Your task to perform on an android device: Search for logitech g pro on target, select the first entry, add it to the cart, then select checkout. Image 0: 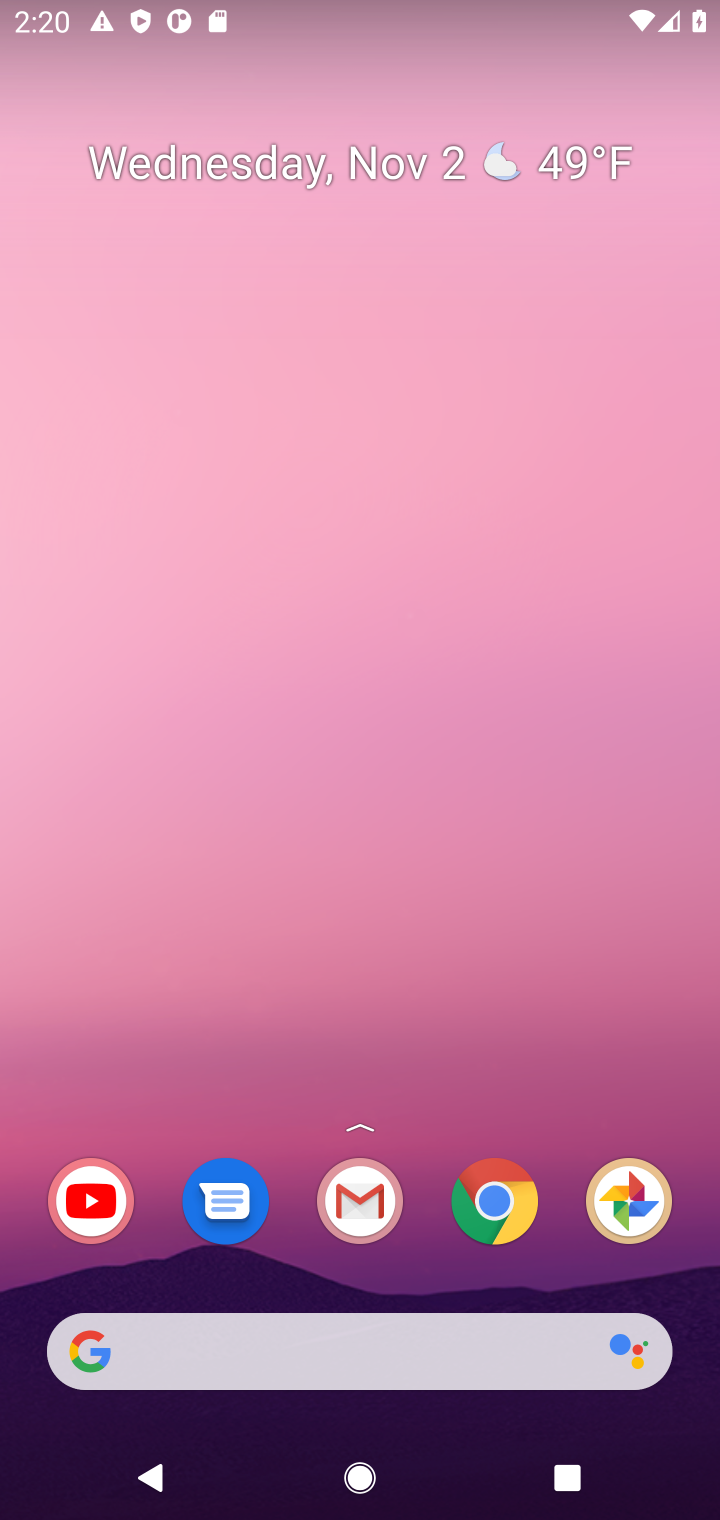
Step 0: click (501, 1191)
Your task to perform on an android device: Search for logitech g pro on target, select the first entry, add it to the cart, then select checkout. Image 1: 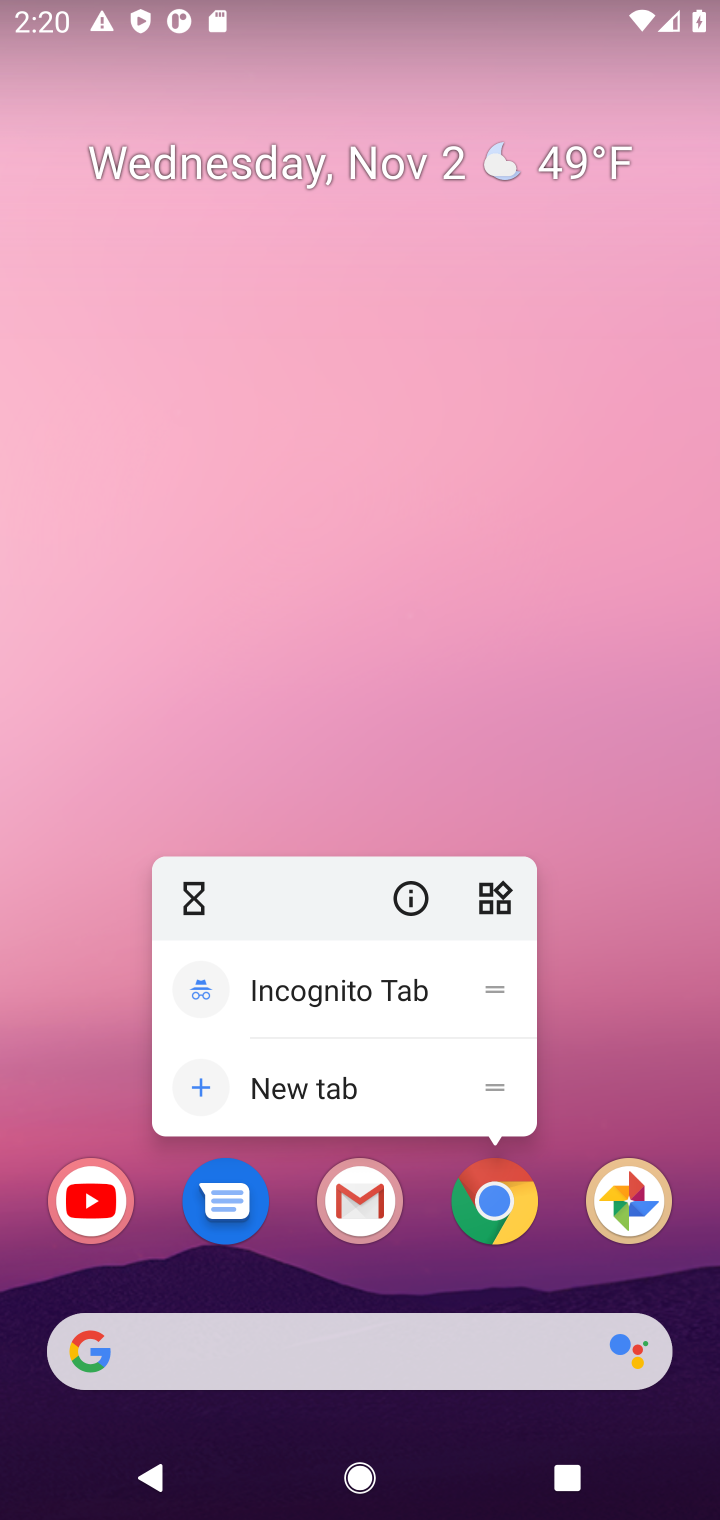
Step 1: click (501, 1195)
Your task to perform on an android device: Search for logitech g pro on target, select the first entry, add it to the cart, then select checkout. Image 2: 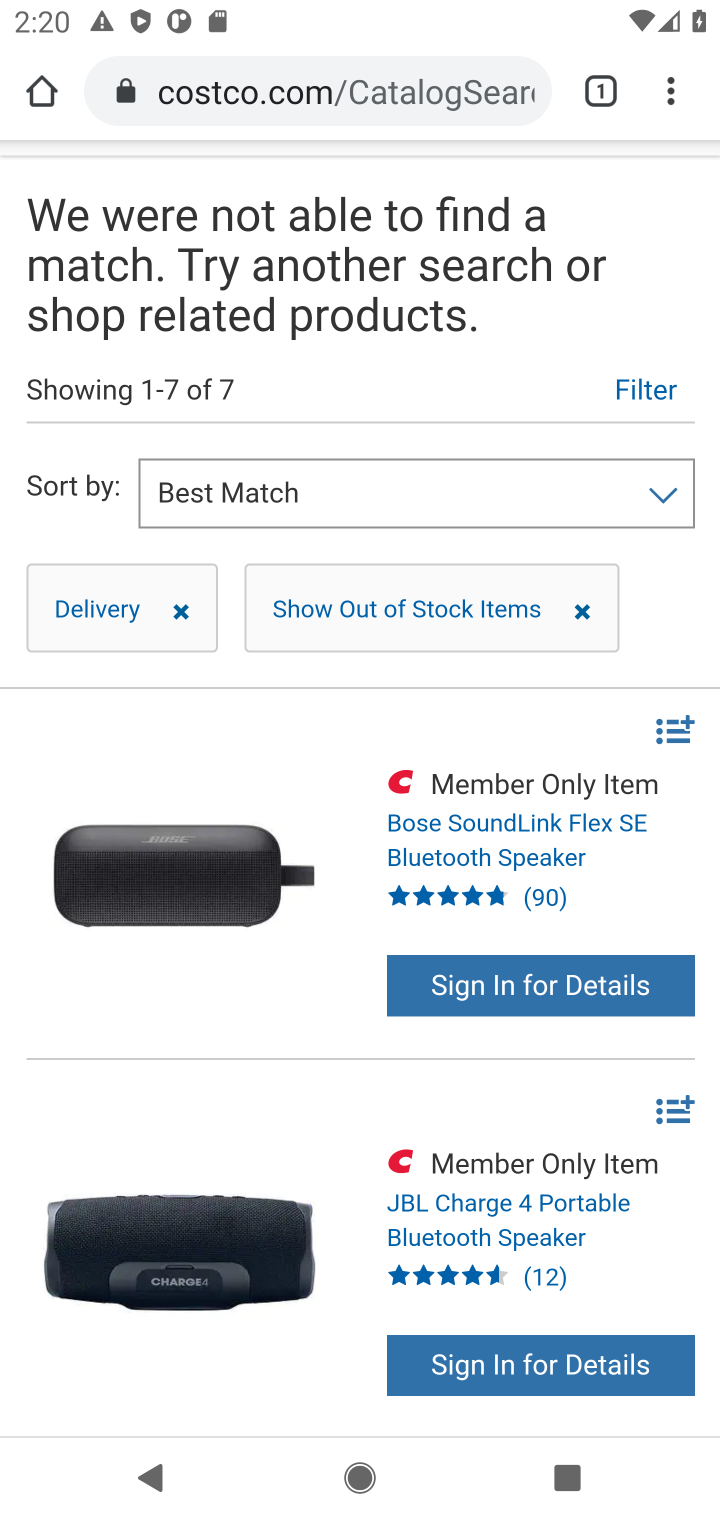
Step 2: drag from (534, 190) to (369, 1000)
Your task to perform on an android device: Search for logitech g pro on target, select the first entry, add it to the cart, then select checkout. Image 3: 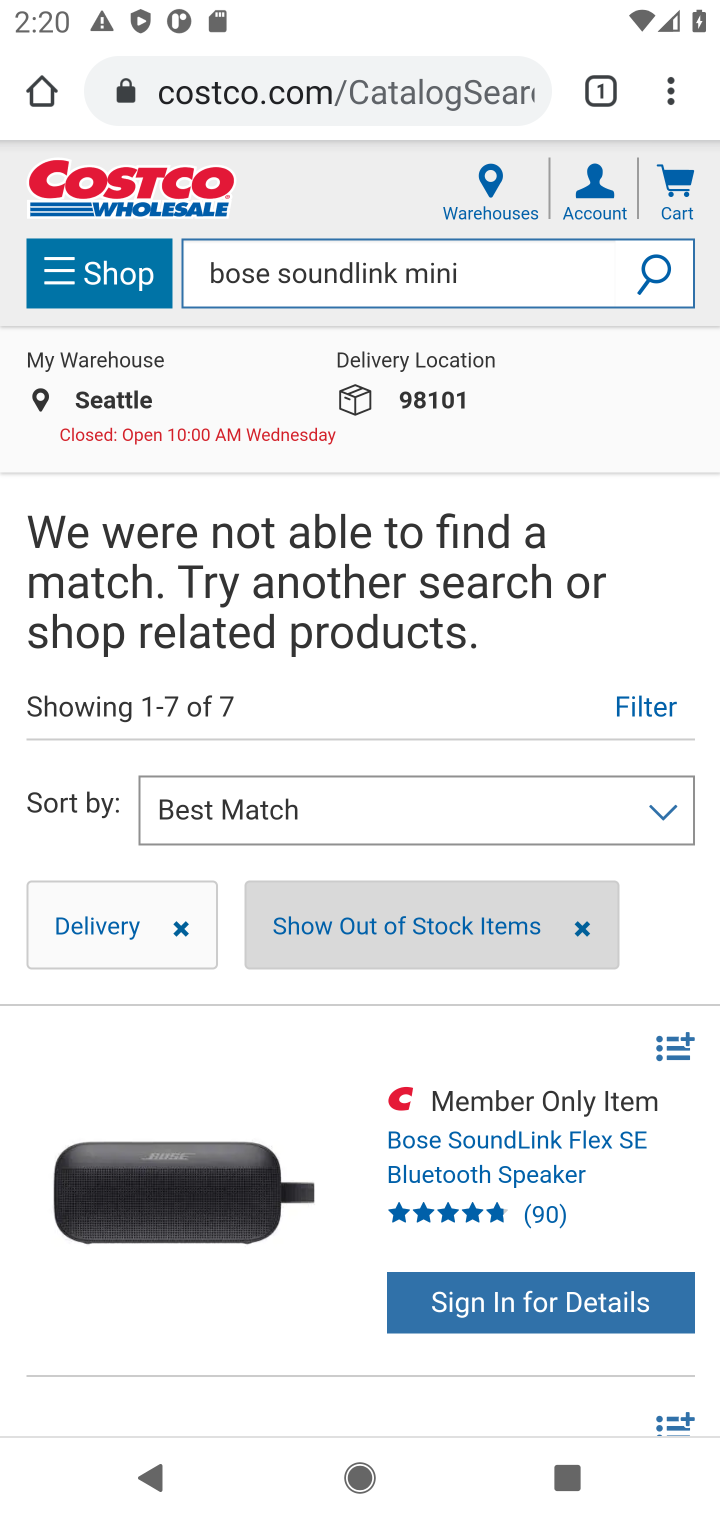
Step 3: click (561, 266)
Your task to perform on an android device: Search for logitech g pro on target, select the first entry, add it to the cart, then select checkout. Image 4: 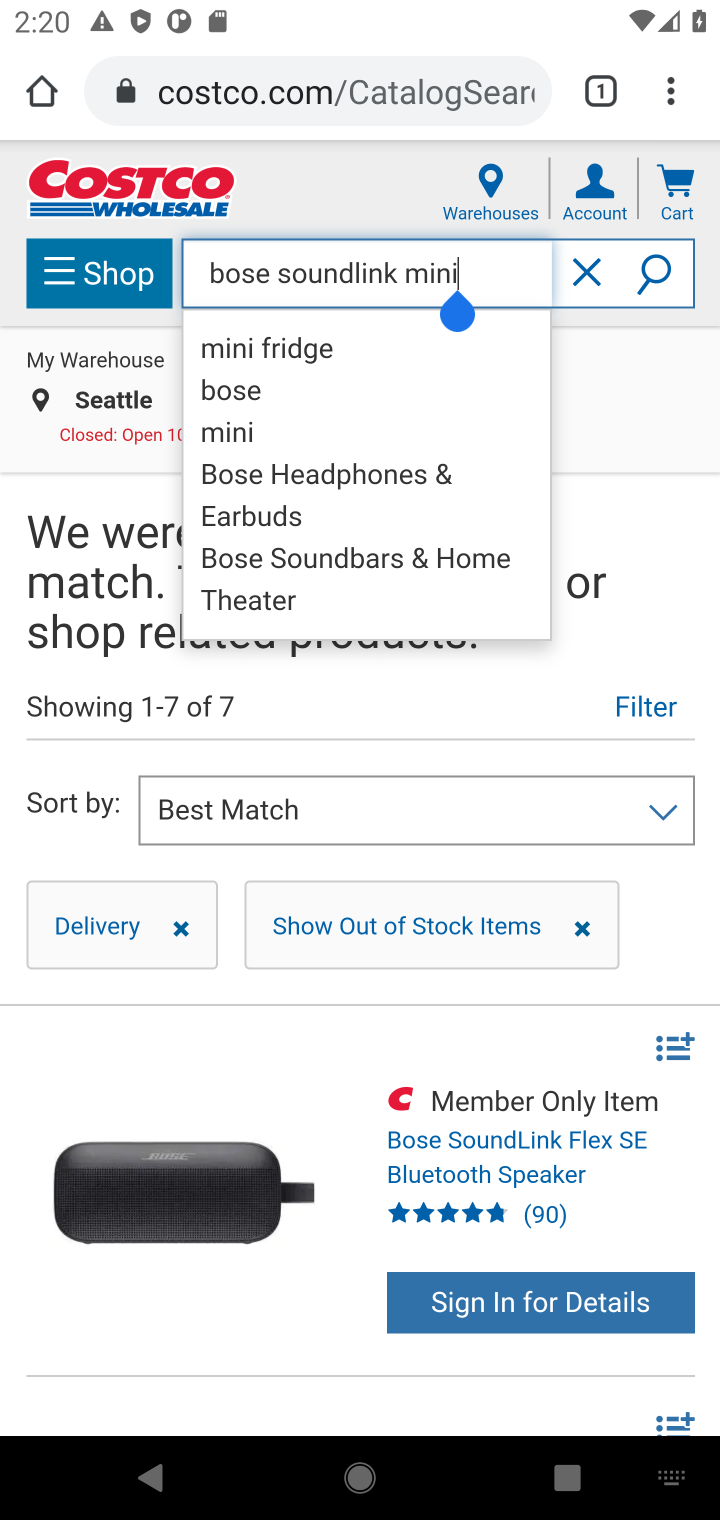
Step 4: click (483, 263)
Your task to perform on an android device: Search for logitech g pro on target, select the first entry, add it to the cart, then select checkout. Image 5: 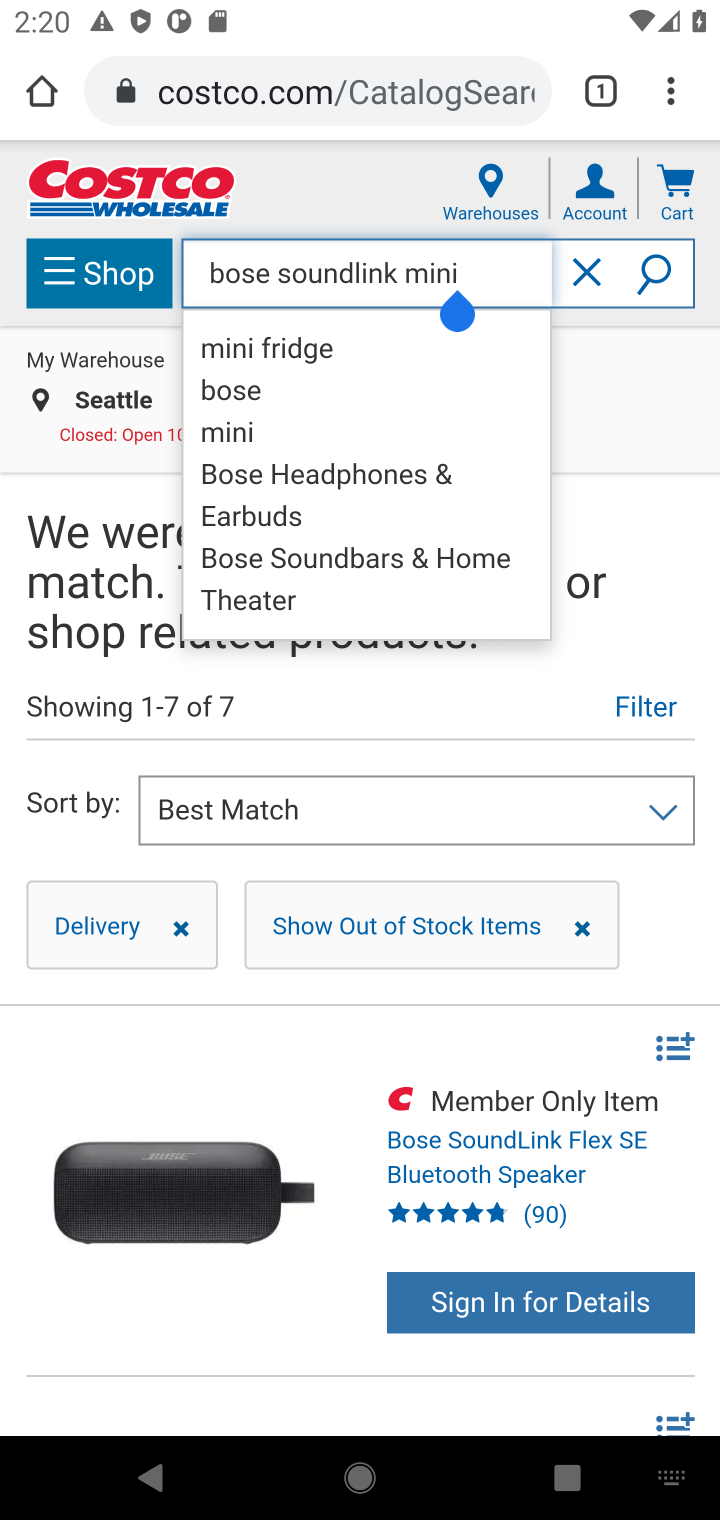
Step 5: click (583, 271)
Your task to perform on an android device: Search for logitech g pro on target, select the first entry, add it to the cart, then select checkout. Image 6: 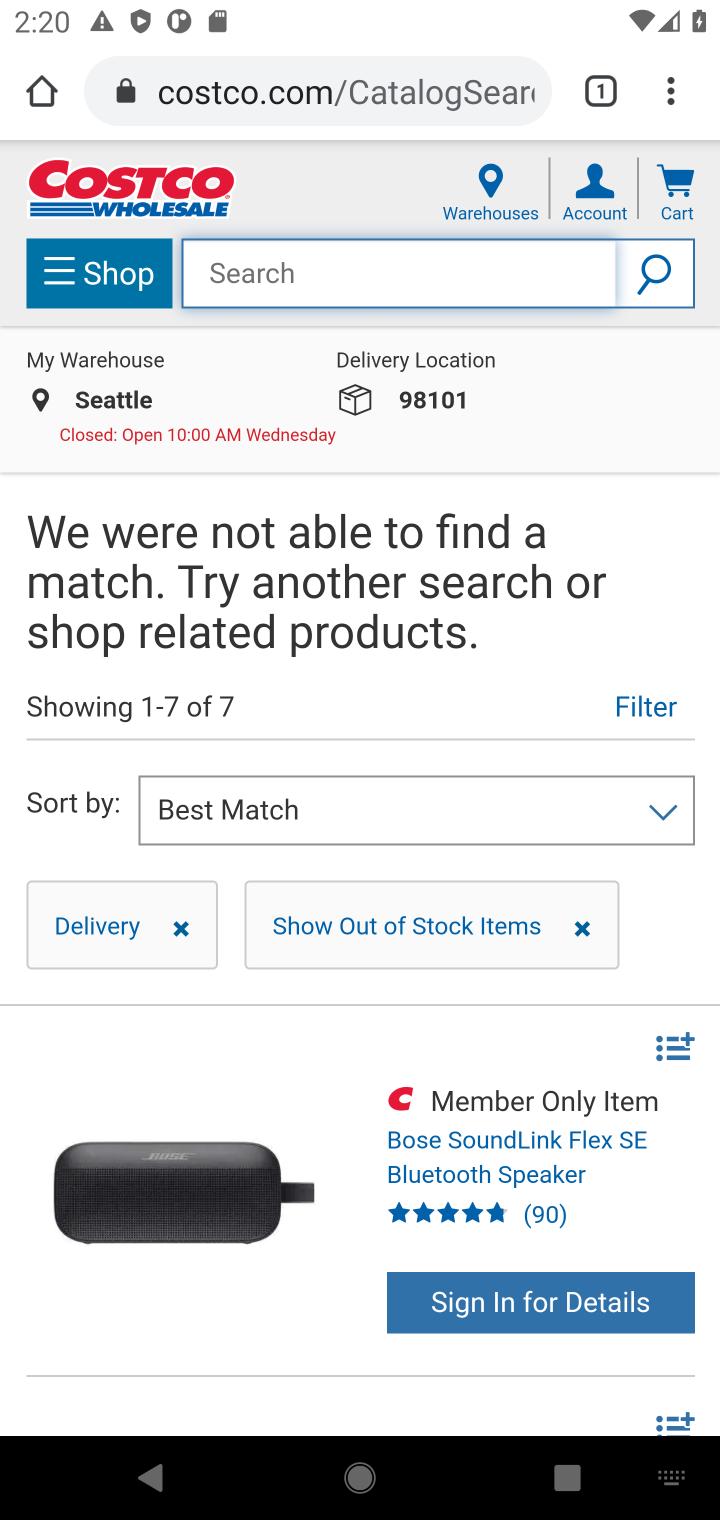
Step 6: click (334, 283)
Your task to perform on an android device: Search for logitech g pro on target, select the first entry, add it to the cart, then select checkout. Image 7: 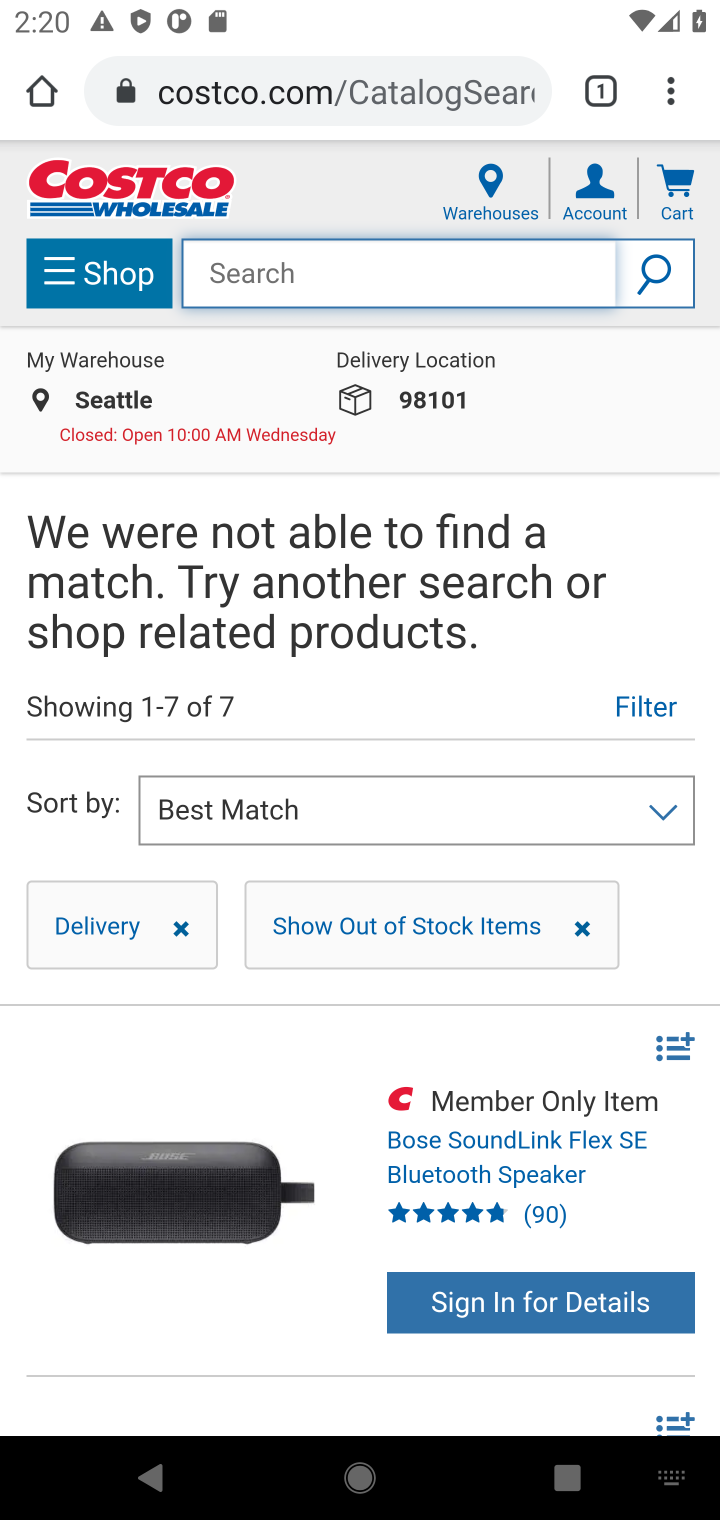
Step 7: click (418, 92)
Your task to perform on an android device: Search for logitech g pro on target, select the first entry, add it to the cart, then select checkout. Image 8: 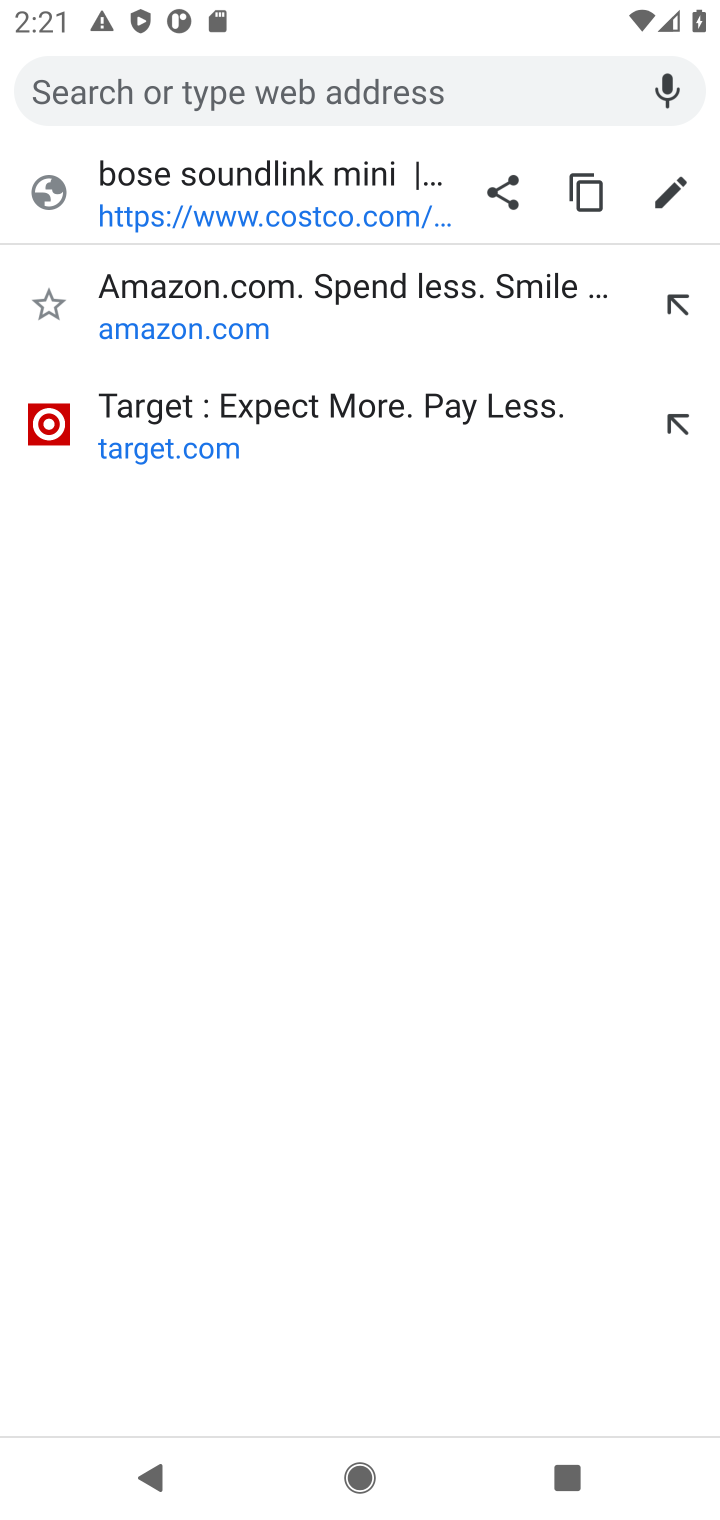
Step 8: click (152, 396)
Your task to perform on an android device: Search for logitech g pro on target, select the first entry, add it to the cart, then select checkout. Image 9: 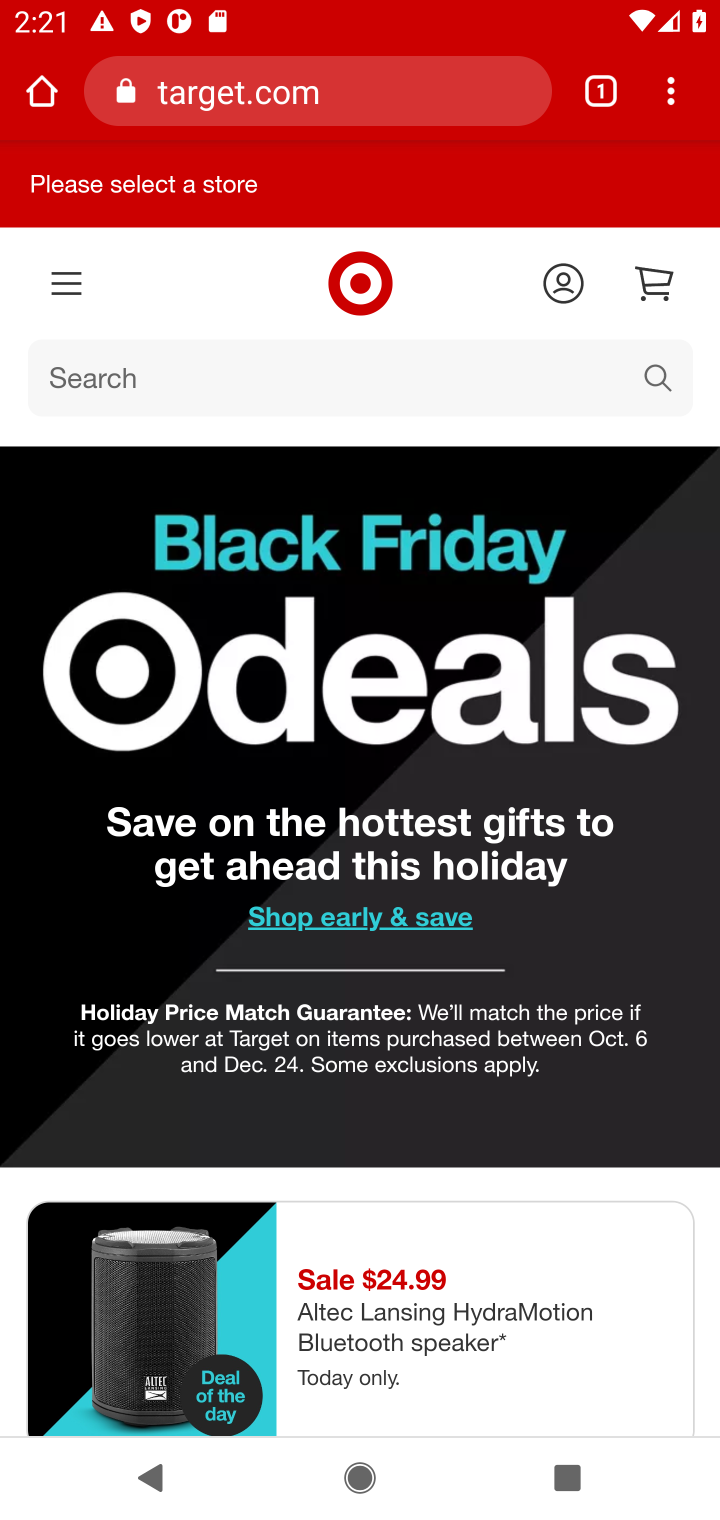
Step 9: click (316, 390)
Your task to perform on an android device: Search for logitech g pro on target, select the first entry, add it to the cart, then select checkout. Image 10: 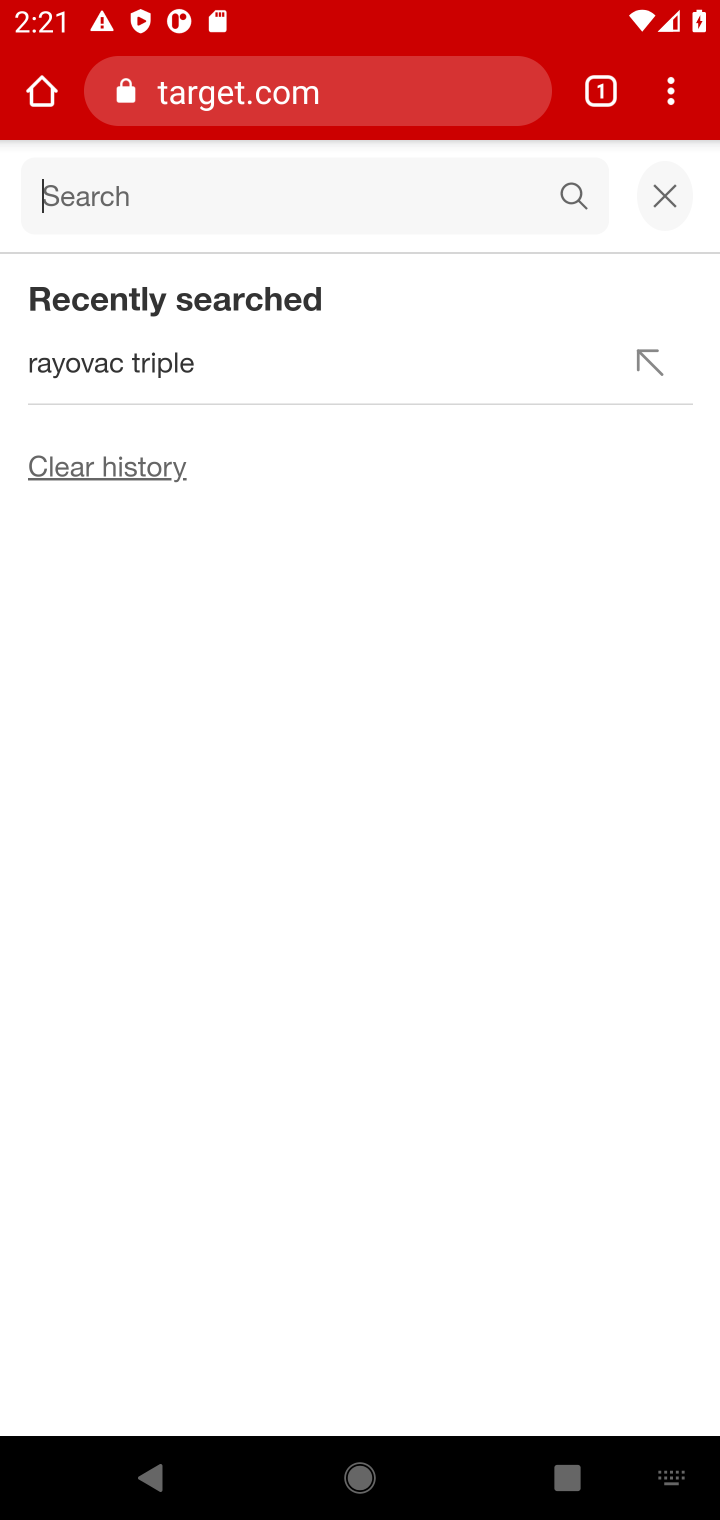
Step 10: press enter
Your task to perform on an android device: Search for logitech g pro on target, select the first entry, add it to the cart, then select checkout. Image 11: 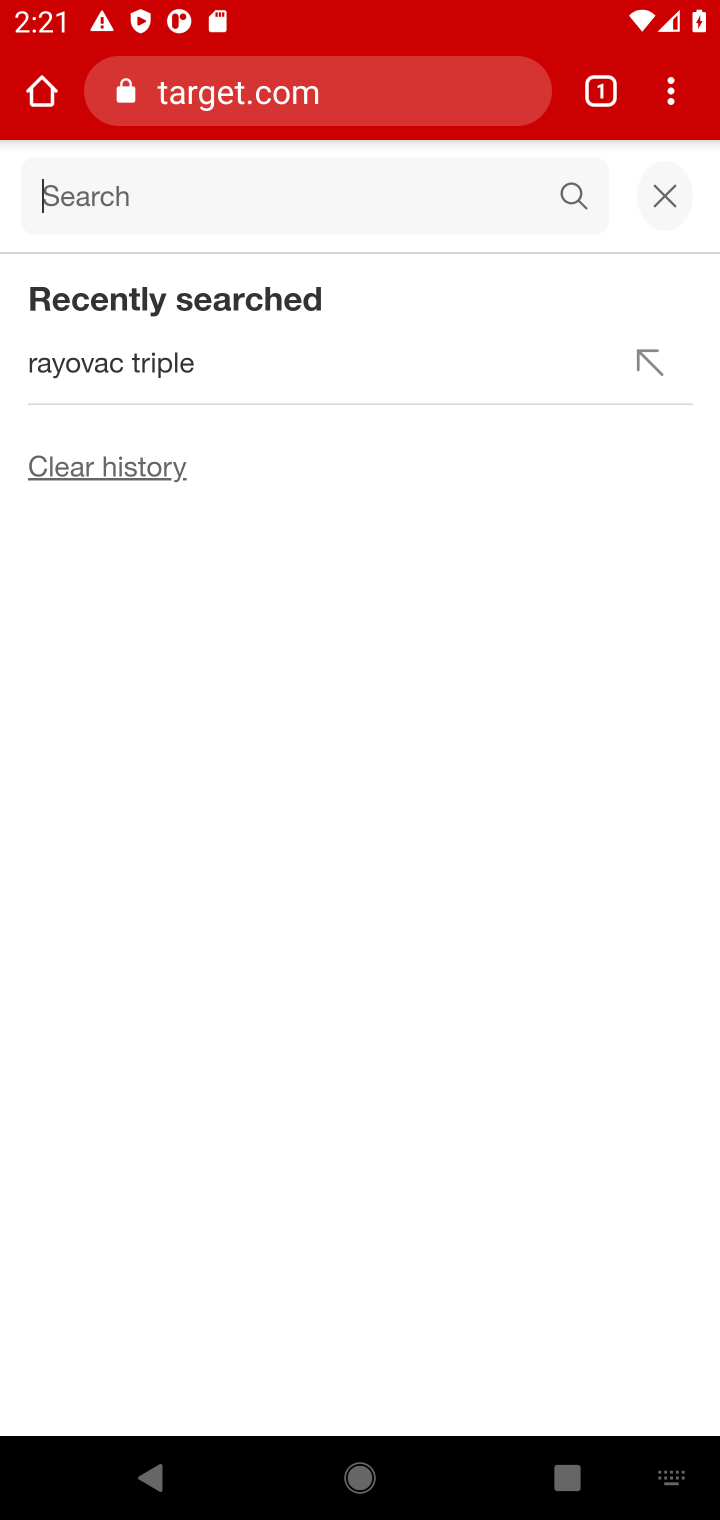
Step 11: type "logitech g pro"
Your task to perform on an android device: Search for logitech g pro on target, select the first entry, add it to the cart, then select checkout. Image 12: 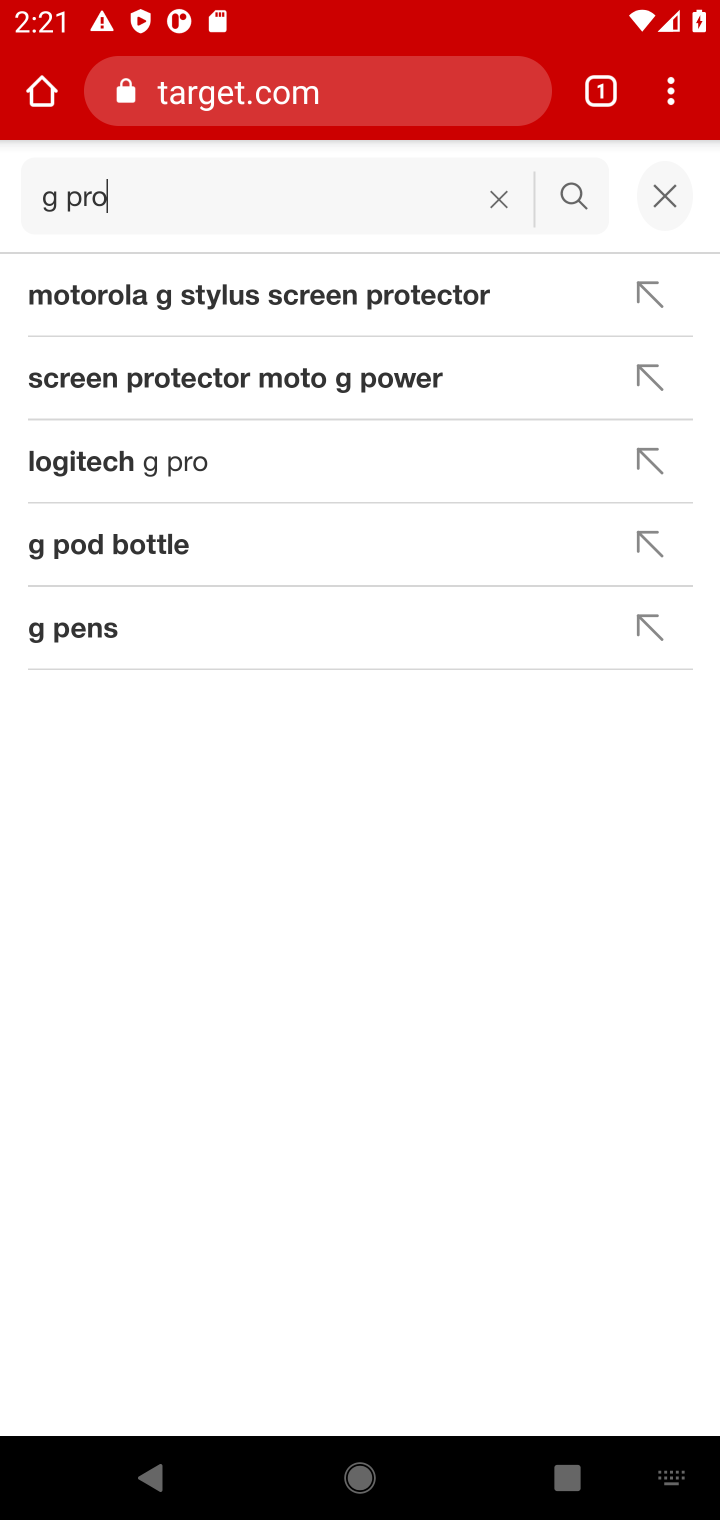
Step 12: click (505, 188)
Your task to perform on an android device: Search for logitech g pro on target, select the first entry, add it to the cart, then select checkout. Image 13: 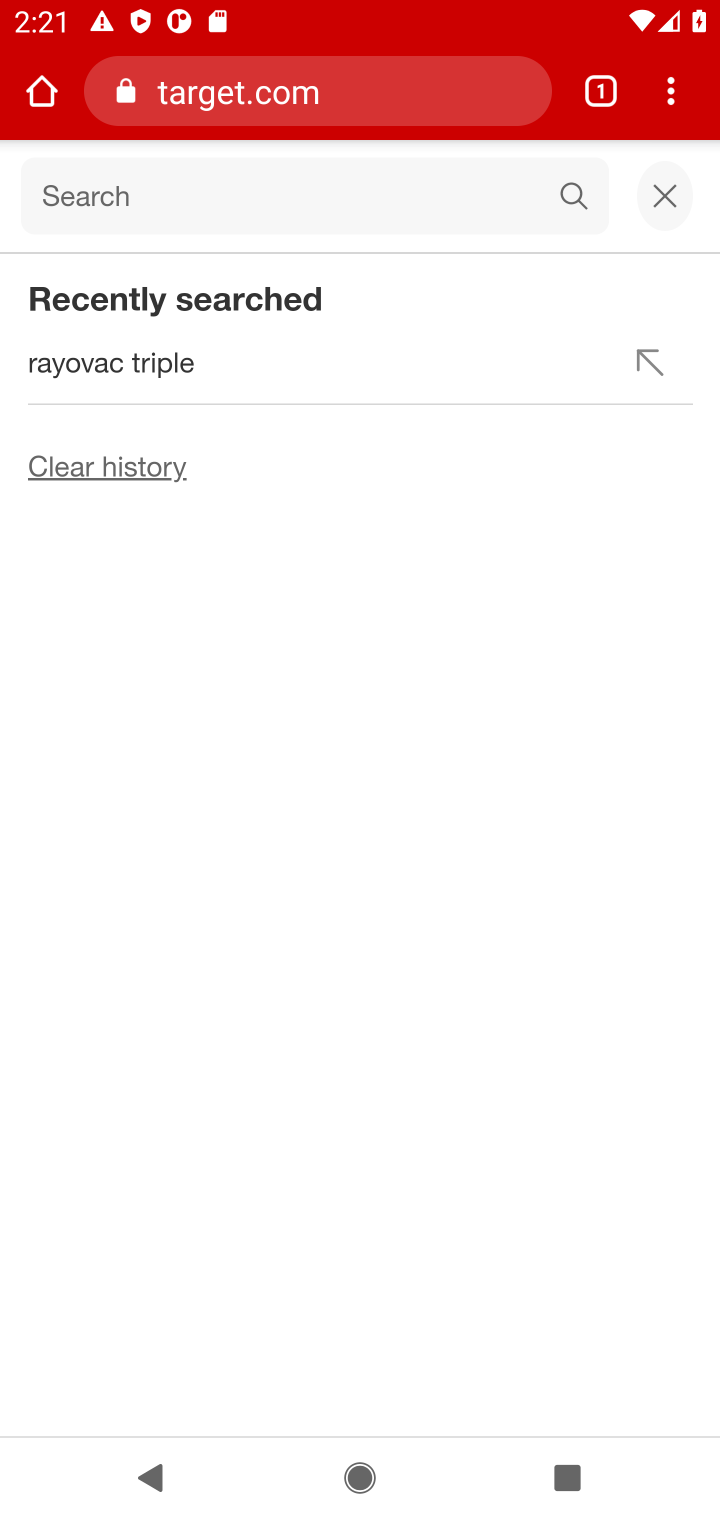
Step 13: type "logitech g pro"
Your task to perform on an android device: Search for logitech g pro on target, select the first entry, add it to the cart, then select checkout. Image 14: 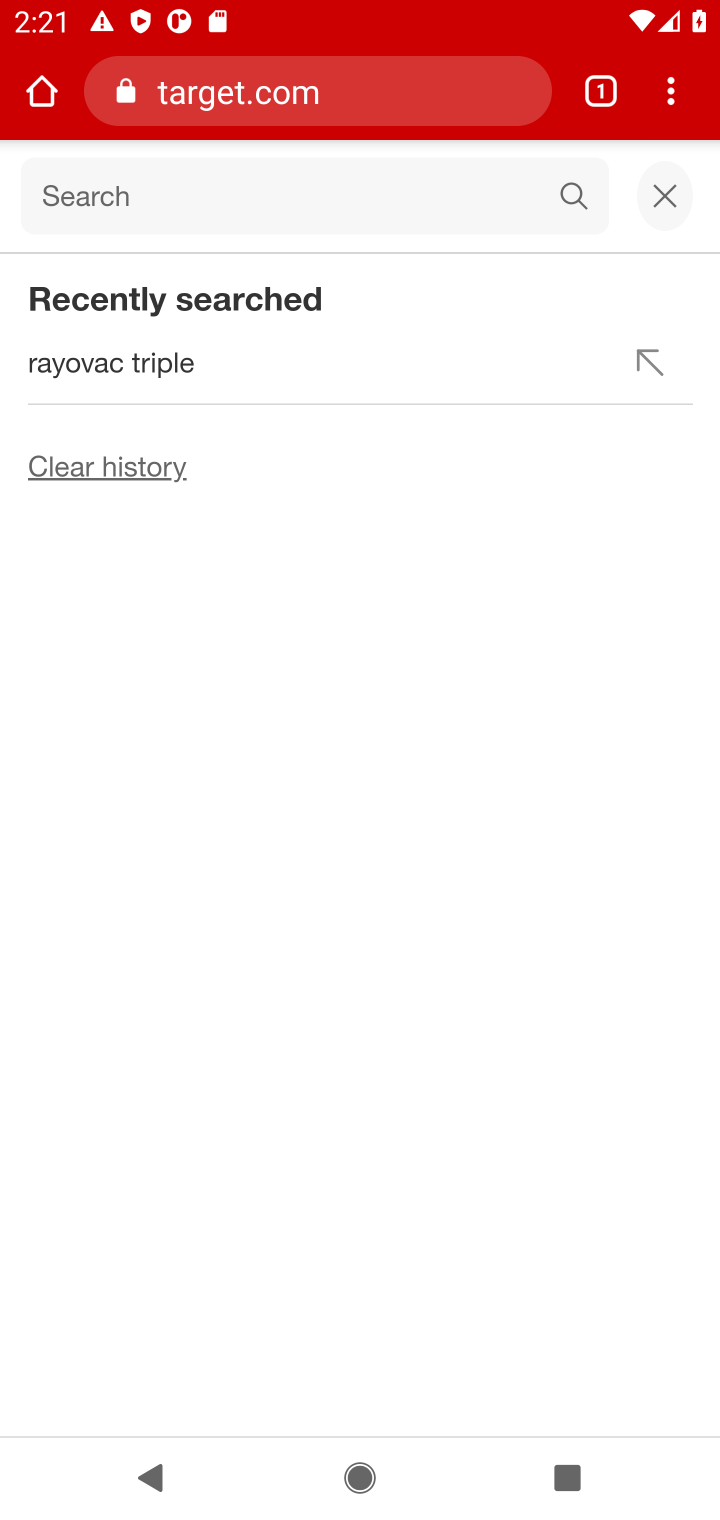
Step 14: press enter
Your task to perform on an android device: Search for logitech g pro on target, select the first entry, add it to the cart, then select checkout. Image 15: 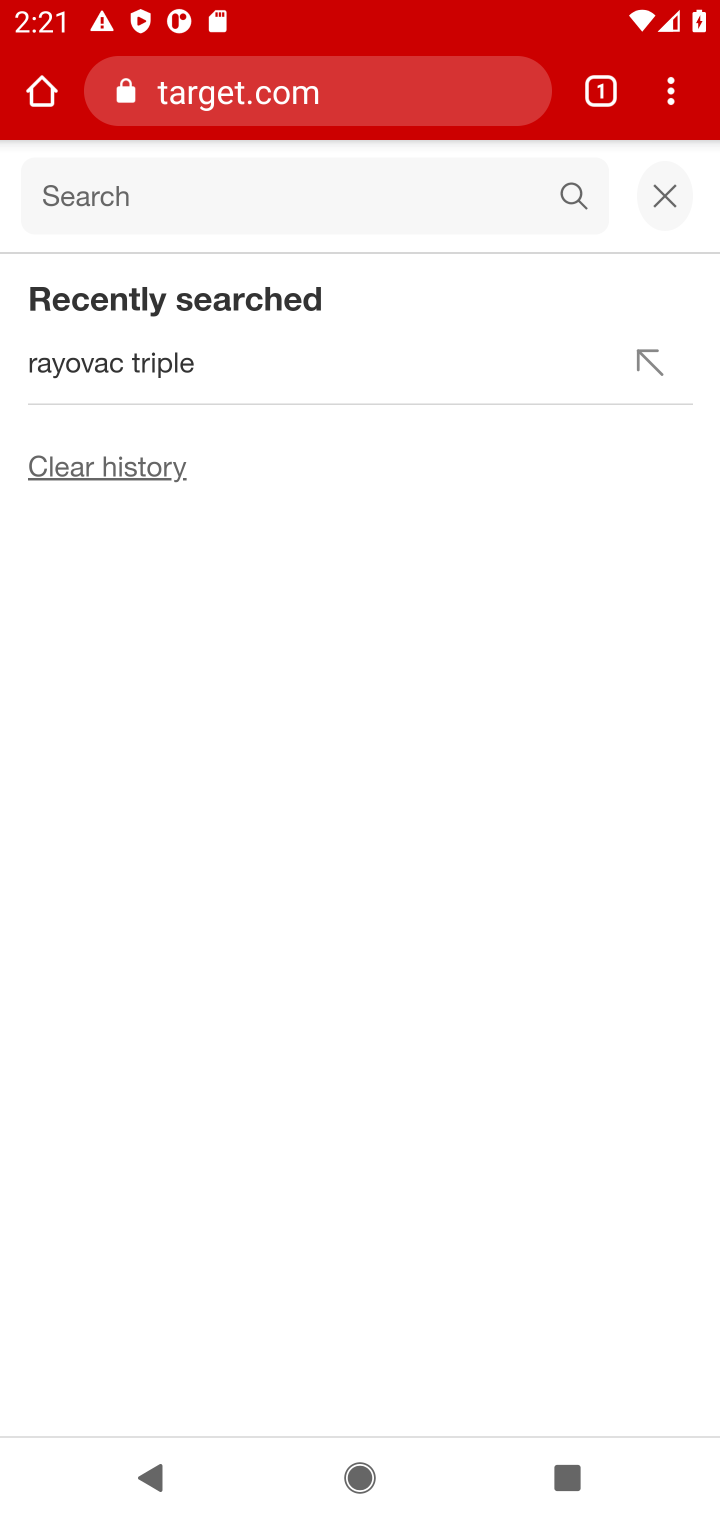
Step 15: click (63, 203)
Your task to perform on an android device: Search for logitech g pro on target, select the first entry, add it to the cart, then select checkout. Image 16: 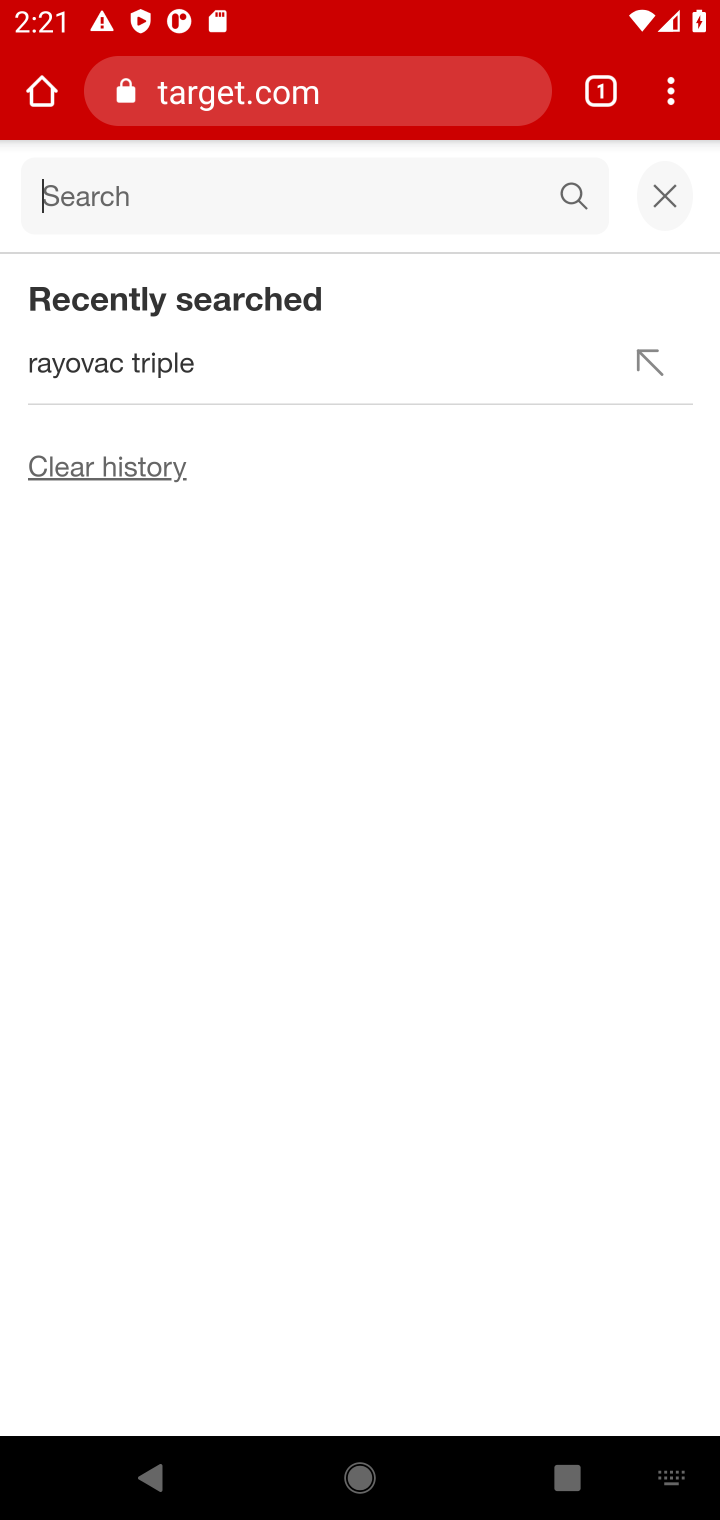
Step 16: type "logitech g pro"
Your task to perform on an android device: Search for logitech g pro on target, select the first entry, add it to the cart, then select checkout. Image 17: 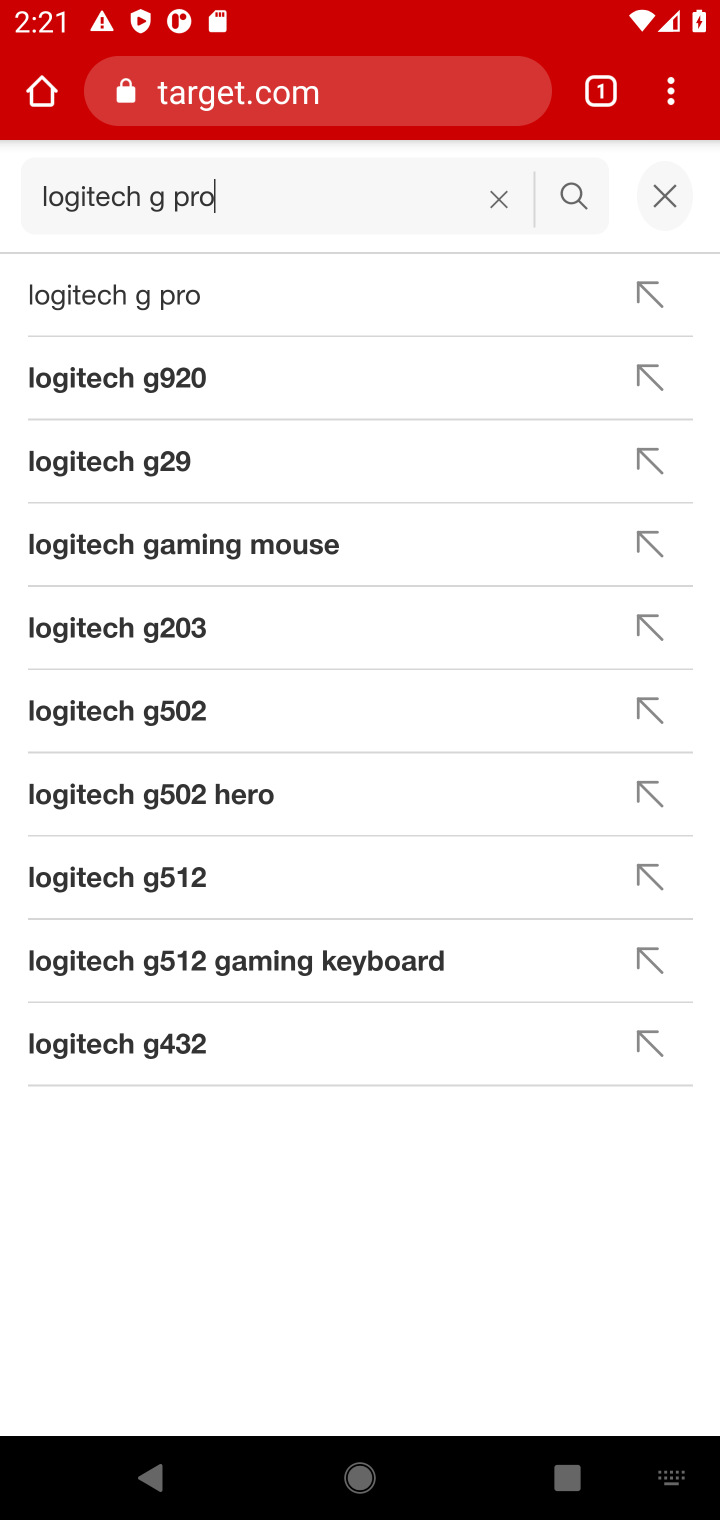
Step 17: press enter
Your task to perform on an android device: Search for logitech g pro on target, select the first entry, add it to the cart, then select checkout. Image 18: 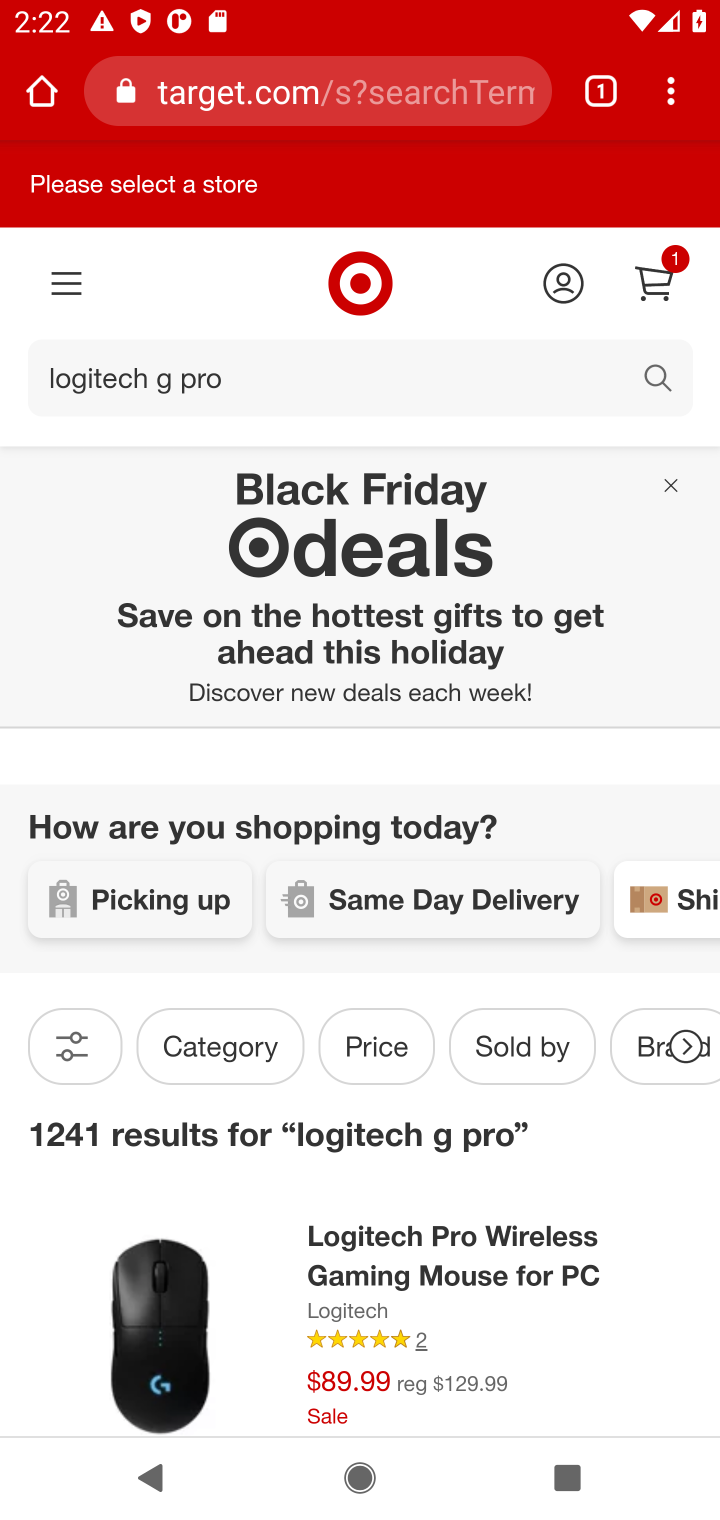
Step 18: drag from (358, 1183) to (512, 617)
Your task to perform on an android device: Search for logitech g pro on target, select the first entry, add it to the cart, then select checkout. Image 19: 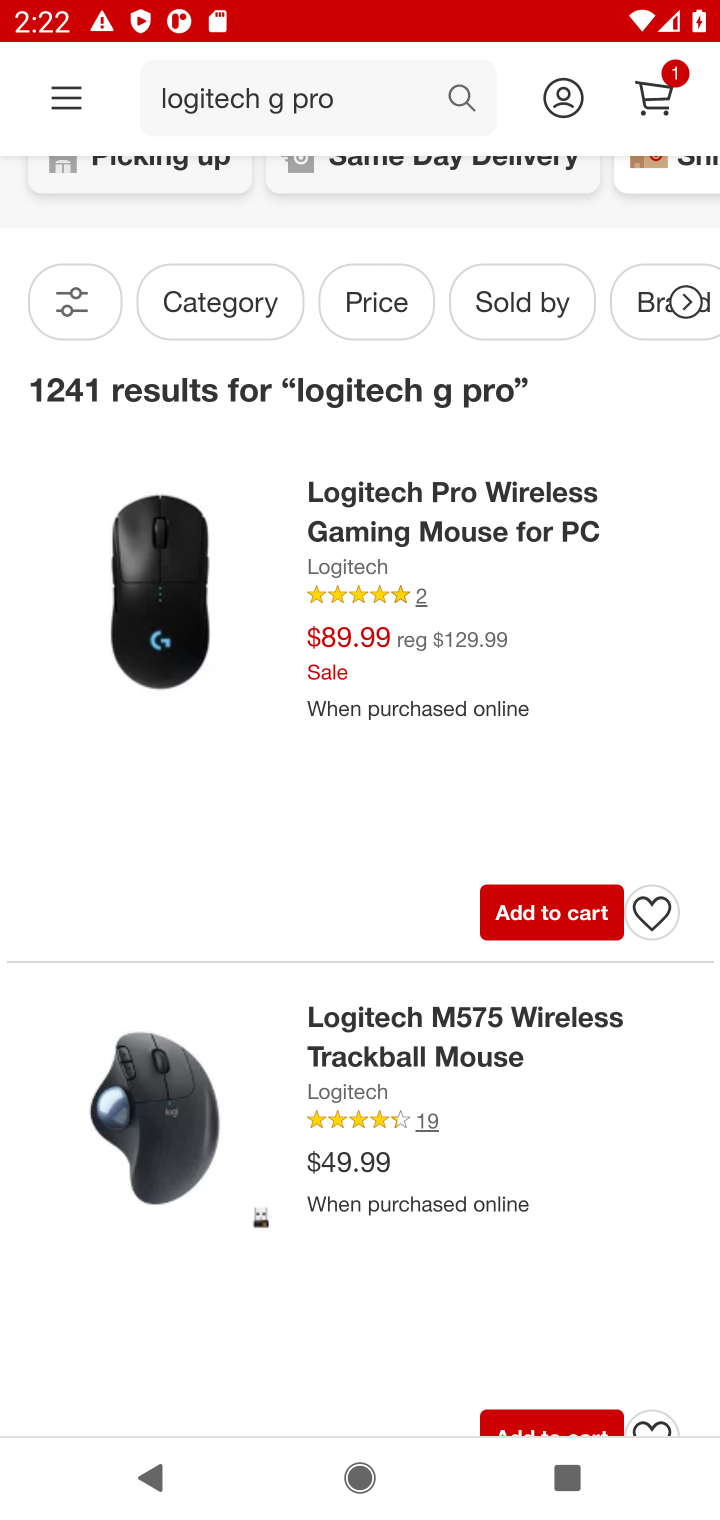
Step 19: click (391, 538)
Your task to perform on an android device: Search for logitech g pro on target, select the first entry, add it to the cart, then select checkout. Image 20: 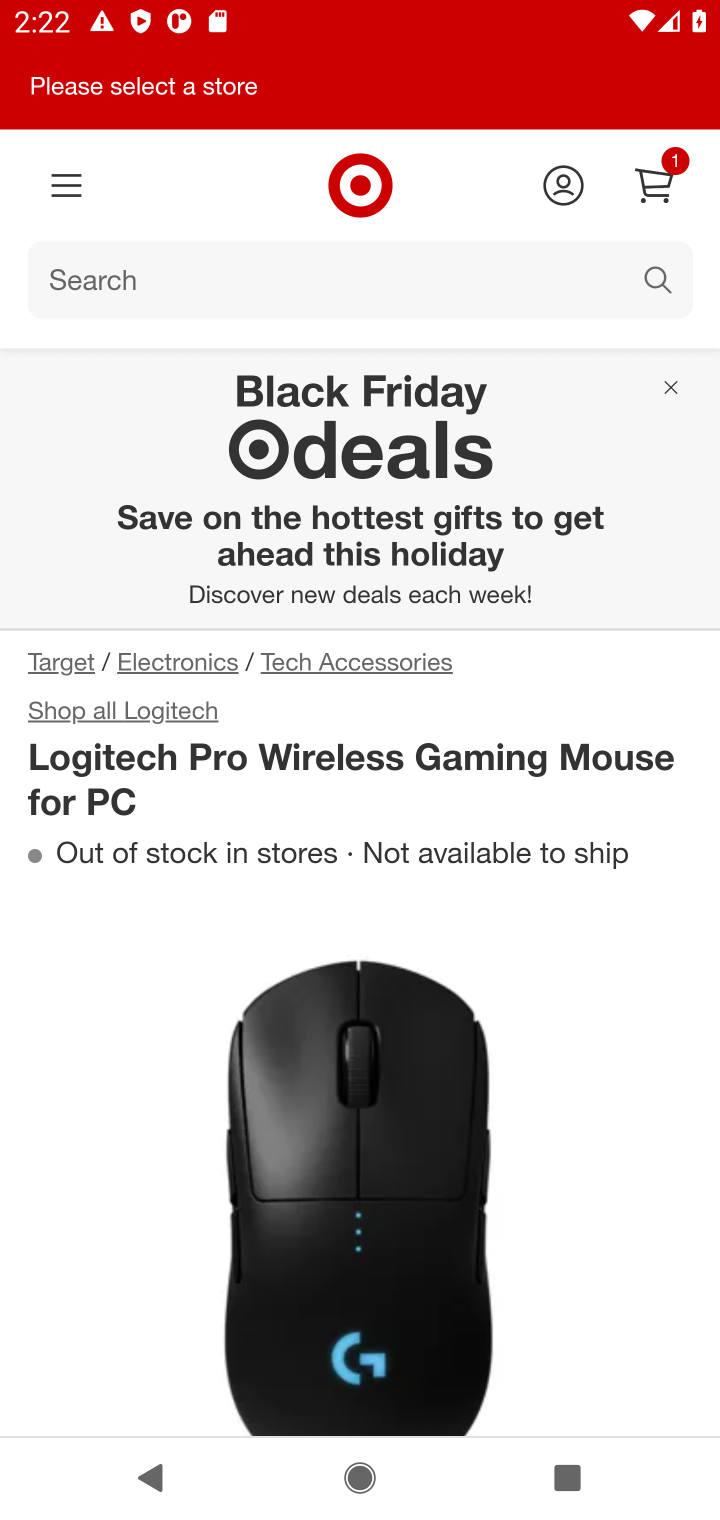
Step 20: task complete